Your task to perform on an android device: View the shopping cart on target. Add razer deathadder to the cart on target, then select checkout. Image 0: 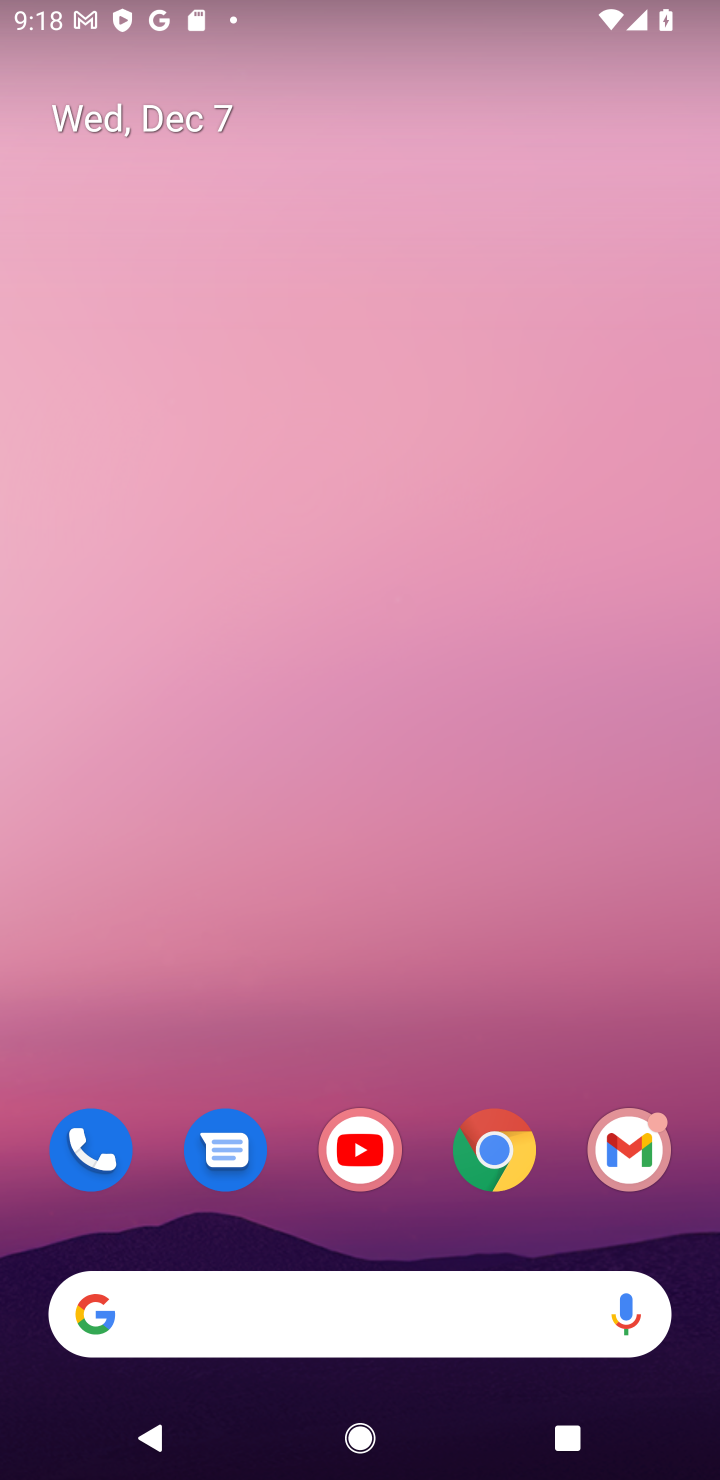
Step 0: click (510, 1145)
Your task to perform on an android device: View the shopping cart on target. Add razer deathadder to the cart on target, then select checkout. Image 1: 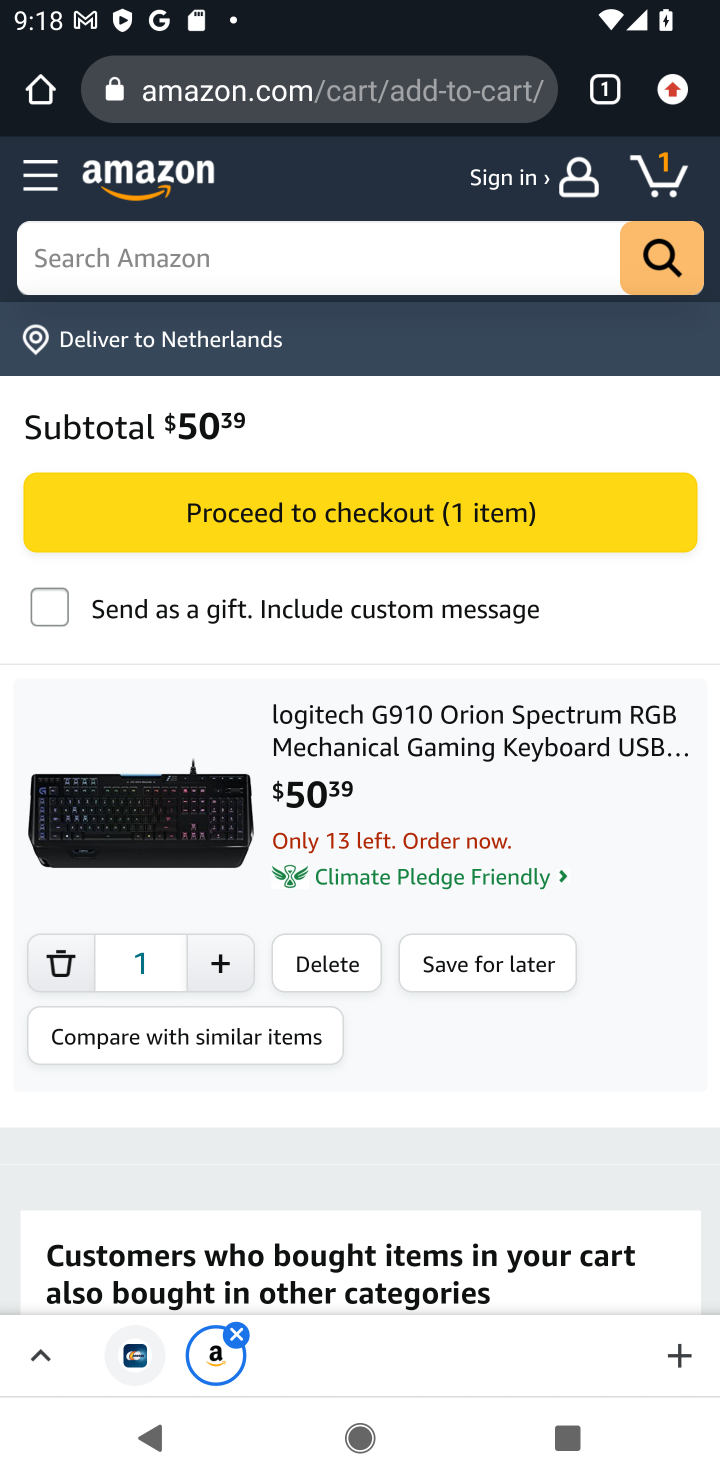
Step 1: click (335, 83)
Your task to perform on an android device: View the shopping cart on target. Add razer deathadder to the cart on target, then select checkout. Image 2: 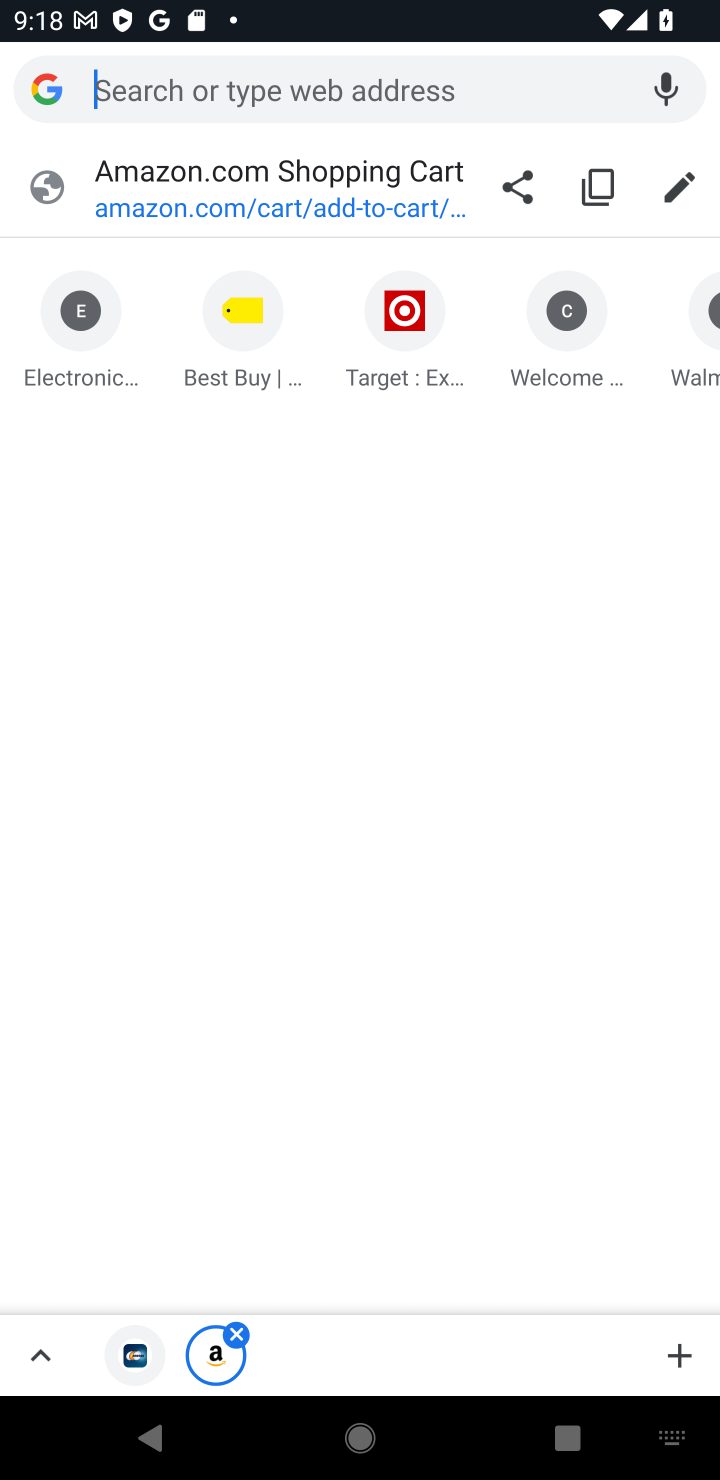
Step 2: click (399, 318)
Your task to perform on an android device: View the shopping cart on target. Add razer deathadder to the cart on target, then select checkout. Image 3: 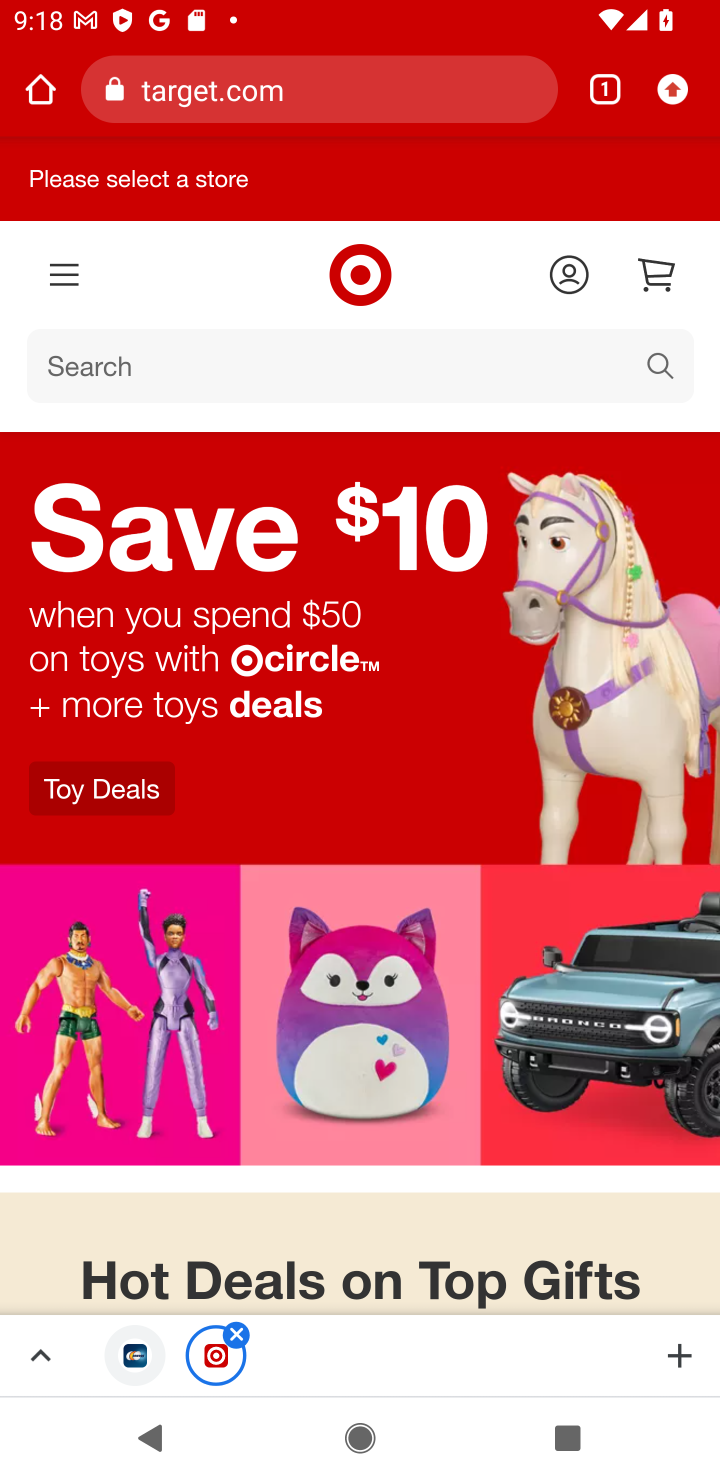
Step 3: click (653, 360)
Your task to perform on an android device: View the shopping cart on target. Add razer deathadder to the cart on target, then select checkout. Image 4: 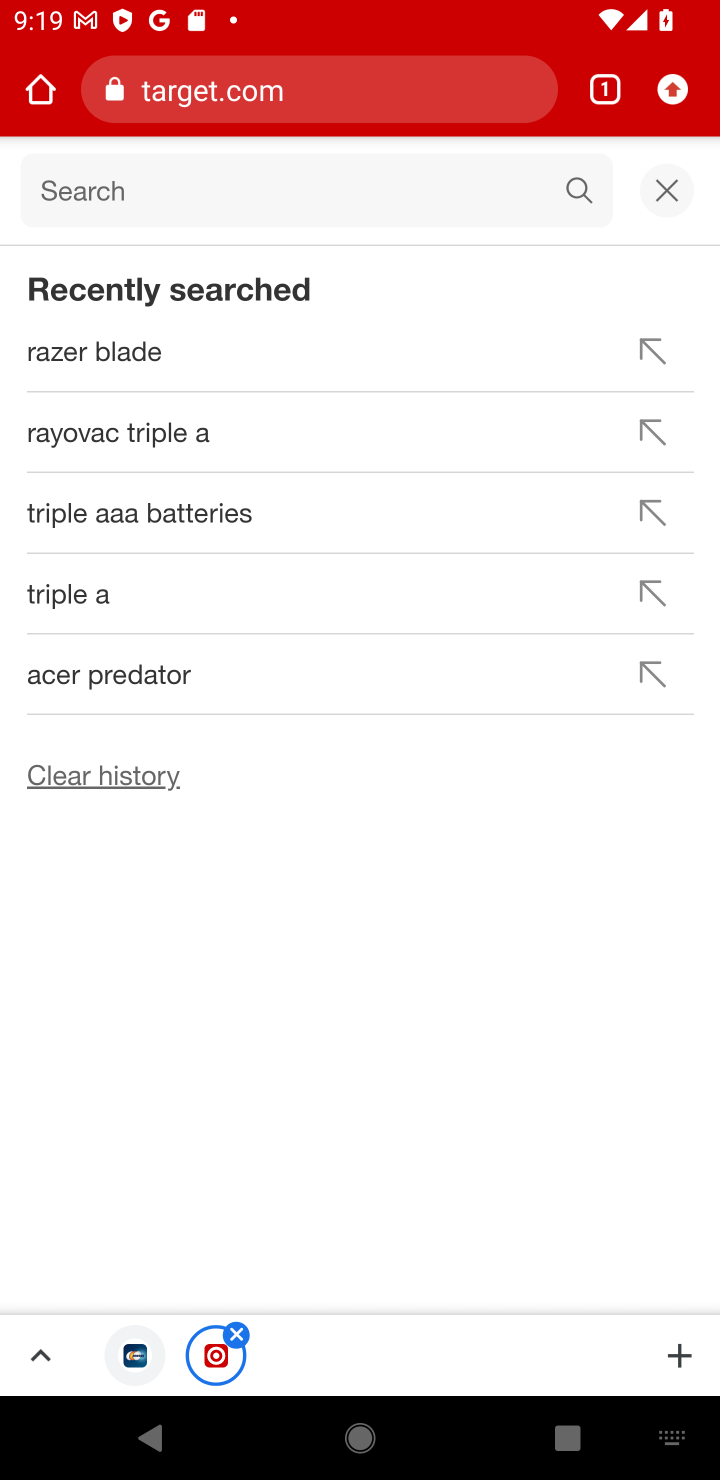
Step 4: click (257, 182)
Your task to perform on an android device: View the shopping cart on target. Add razer deathadder to the cart on target, then select checkout. Image 5: 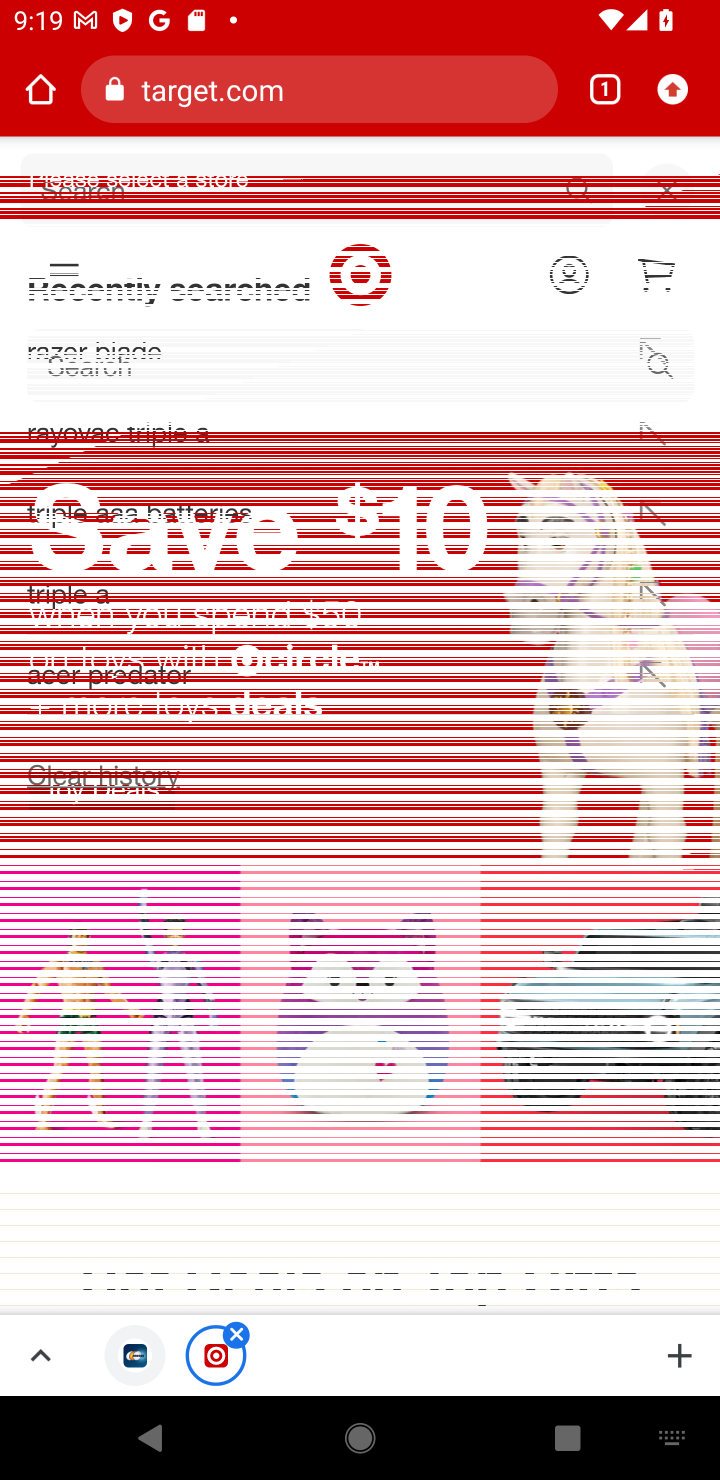
Step 5: press enter
Your task to perform on an android device: View the shopping cart on target. Add razer deathadder to the cart on target, then select checkout. Image 6: 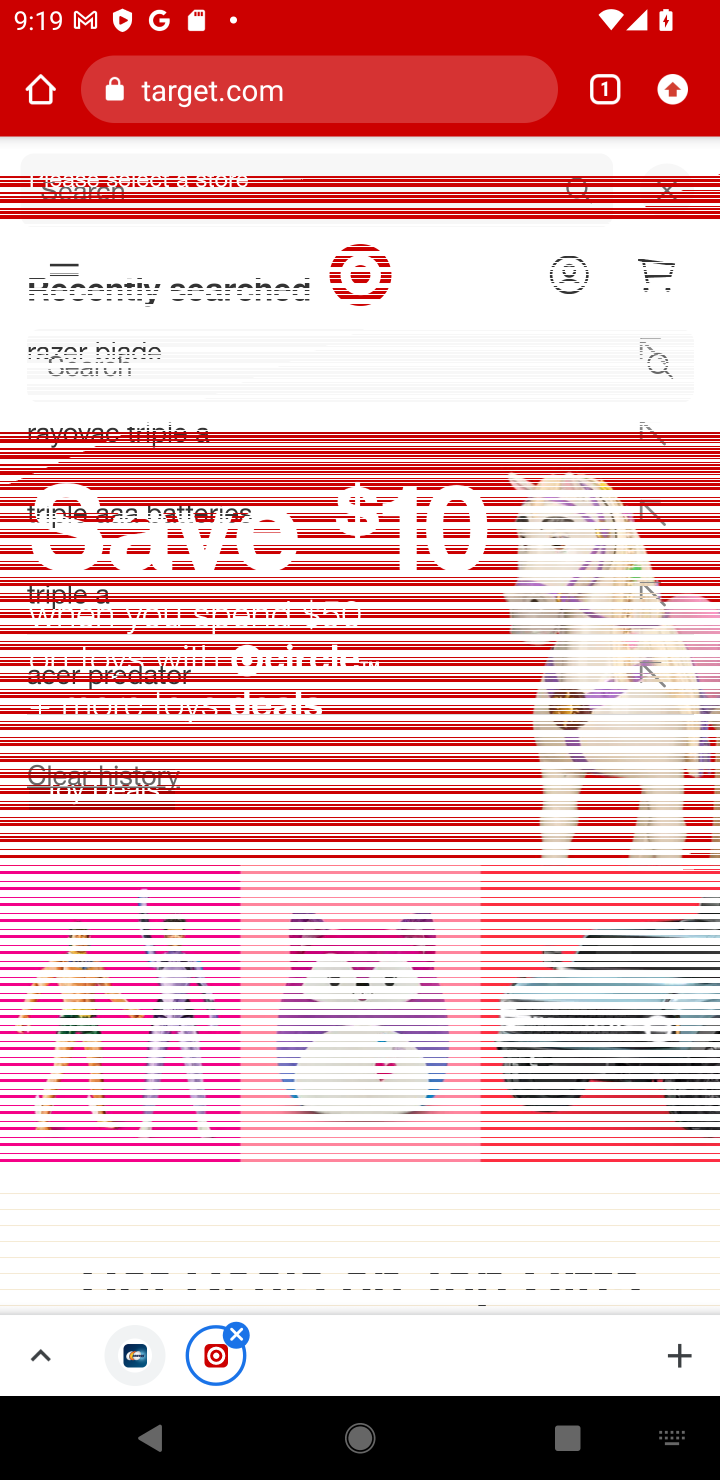
Step 6: type "razer deathadder"
Your task to perform on an android device: View the shopping cart on target. Add razer deathadder to the cart on target, then select checkout. Image 7: 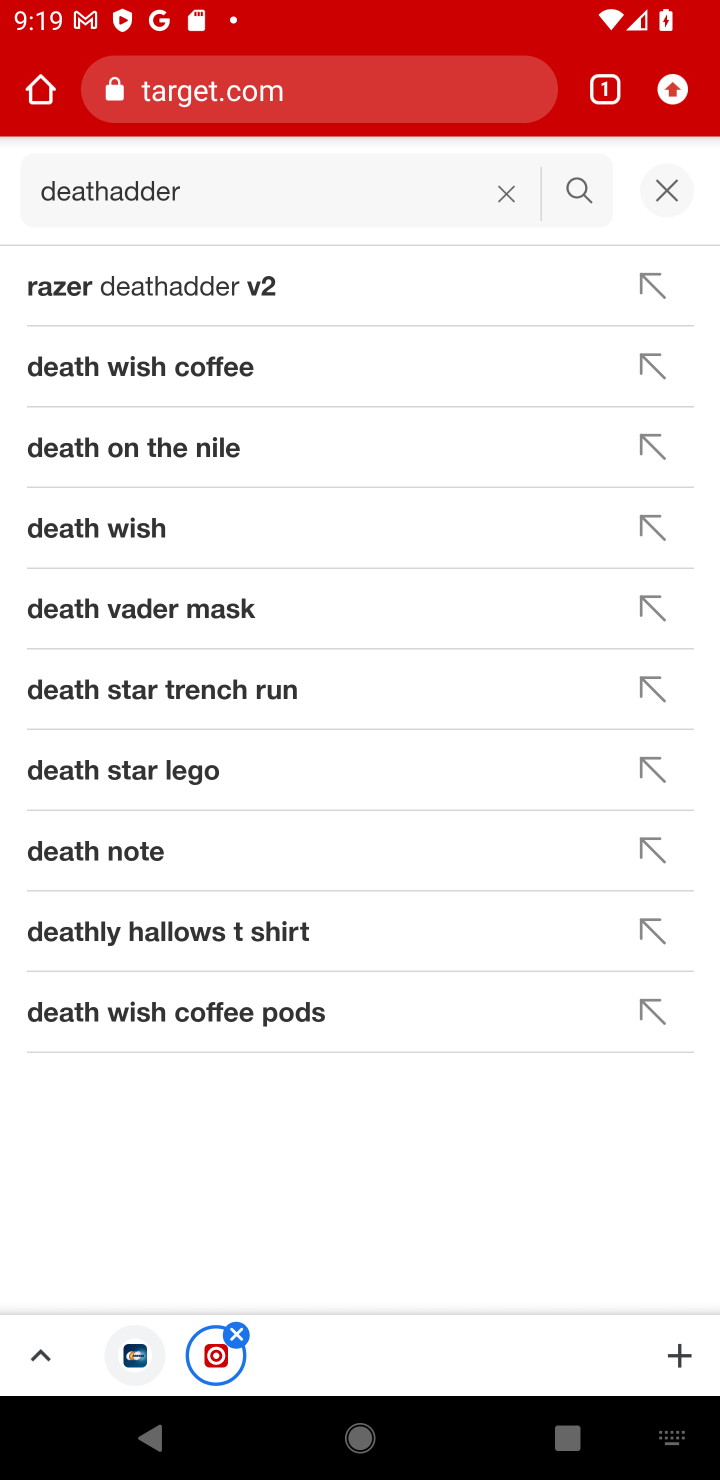
Step 7: click (569, 190)
Your task to perform on an android device: View the shopping cart on target. Add razer deathadder to the cart on target, then select checkout. Image 8: 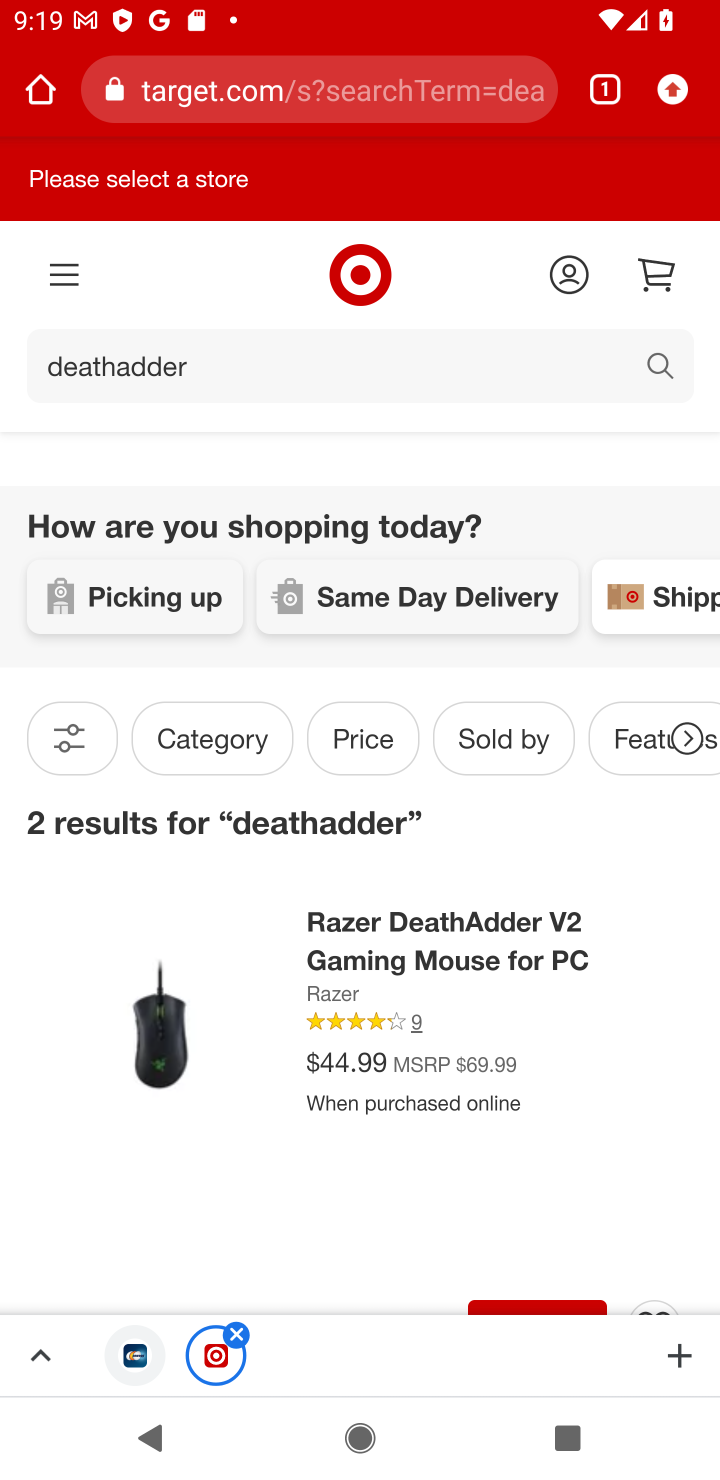
Step 8: click (127, 987)
Your task to perform on an android device: View the shopping cart on target. Add razer deathadder to the cart on target, then select checkout. Image 9: 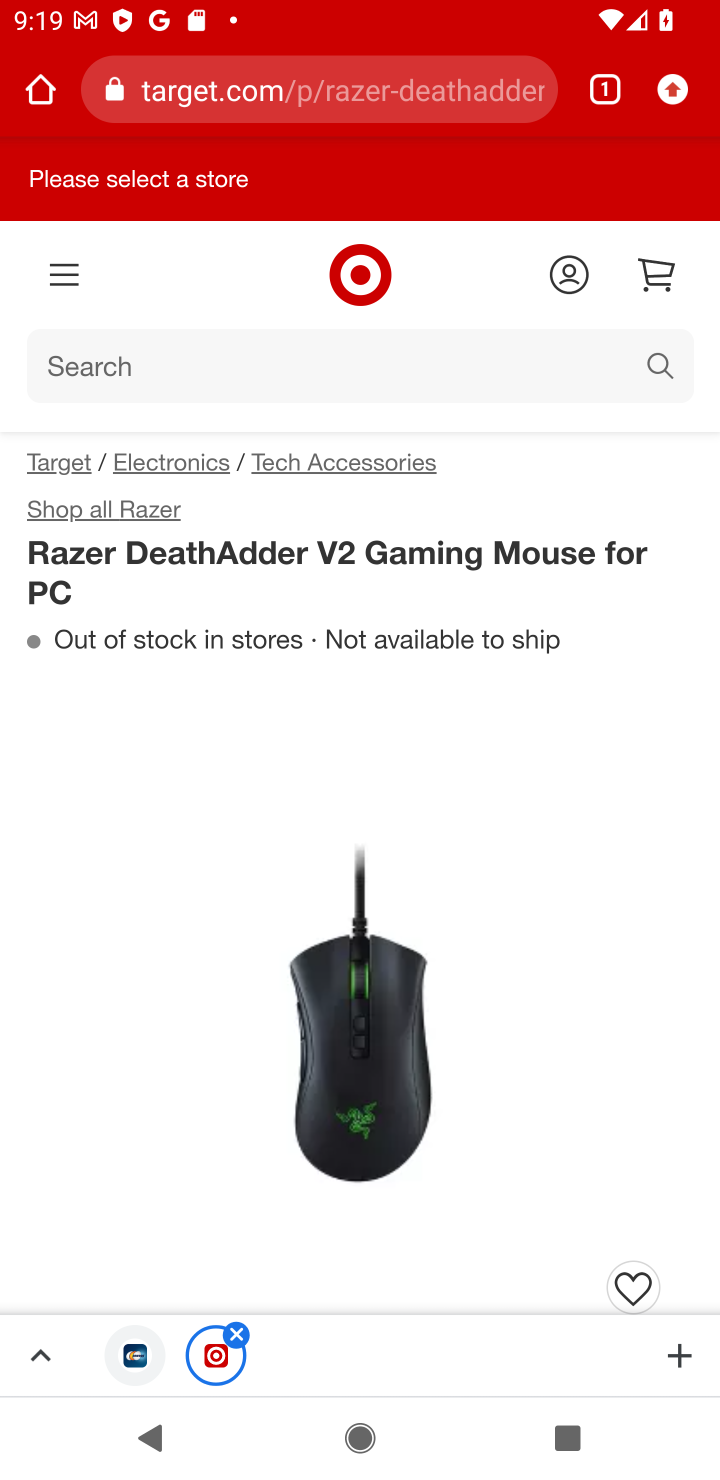
Step 9: drag from (477, 1044) to (632, 290)
Your task to perform on an android device: View the shopping cart on target. Add razer deathadder to the cart on target, then select checkout. Image 10: 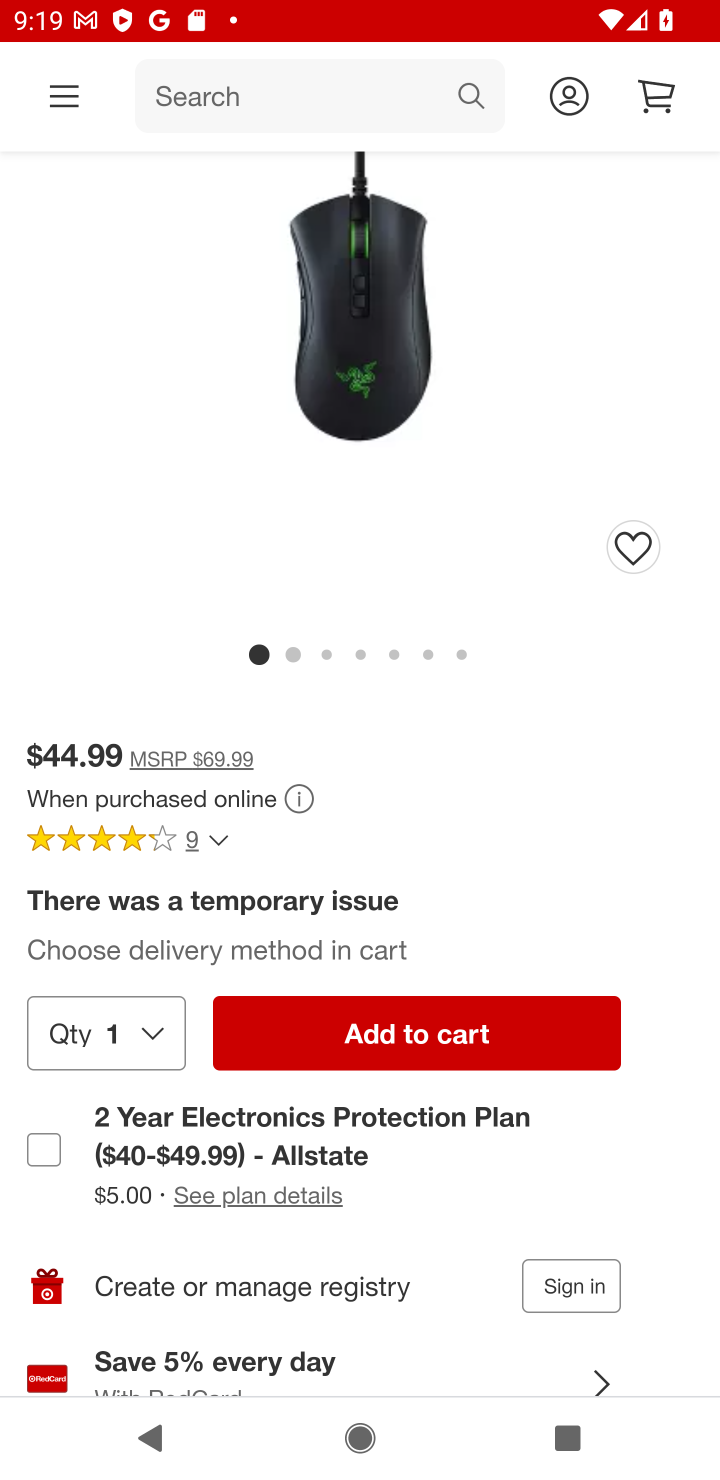
Step 10: click (405, 1005)
Your task to perform on an android device: View the shopping cart on target. Add razer deathadder to the cart on target, then select checkout. Image 11: 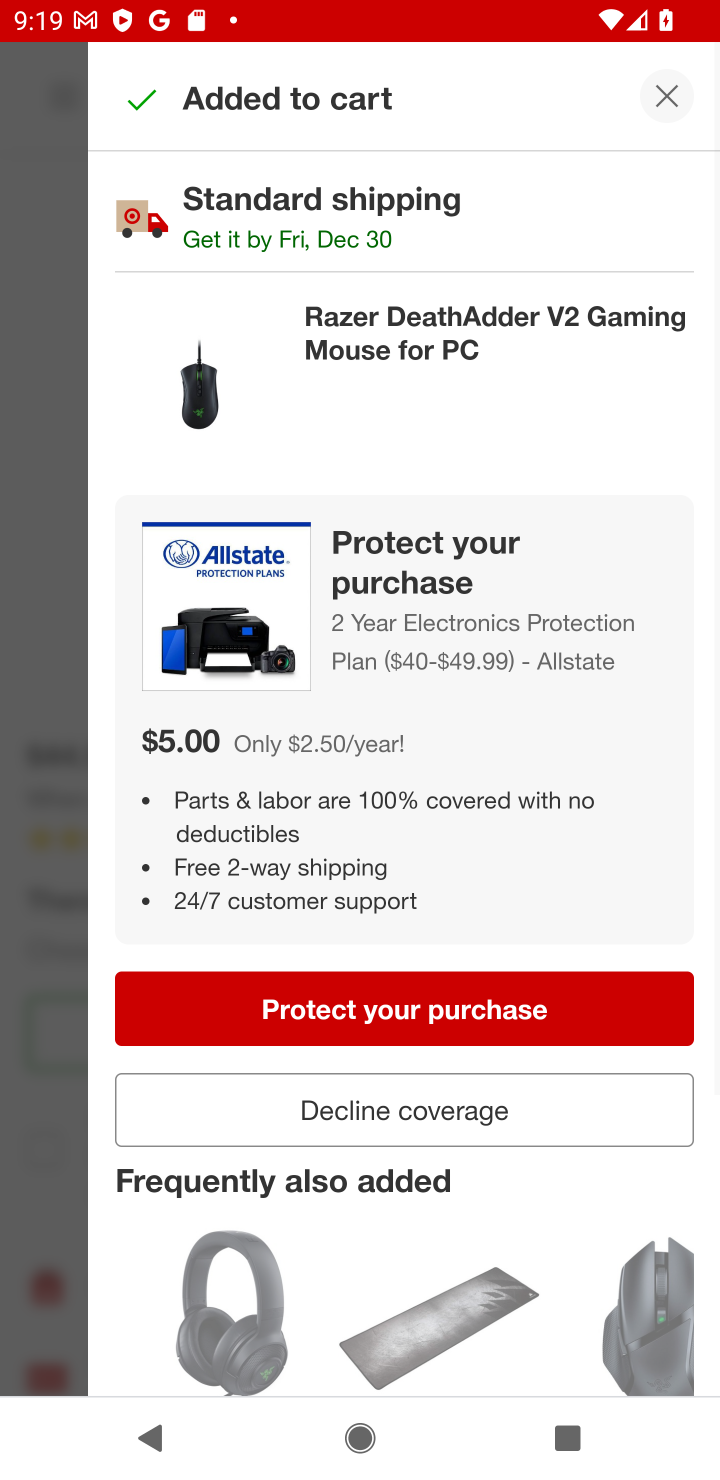
Step 11: click (664, 77)
Your task to perform on an android device: View the shopping cart on target. Add razer deathadder to the cart on target, then select checkout. Image 12: 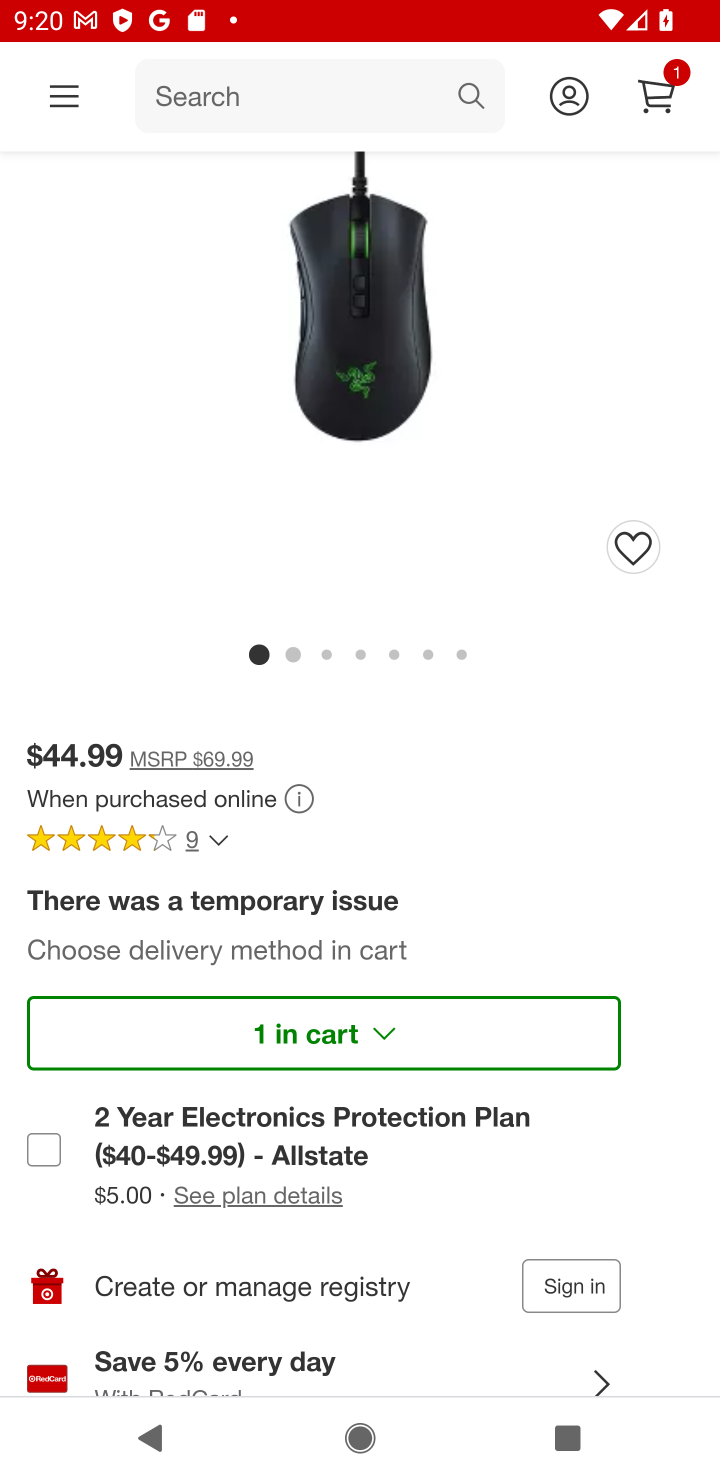
Step 12: click (675, 94)
Your task to perform on an android device: View the shopping cart on target. Add razer deathadder to the cart on target, then select checkout. Image 13: 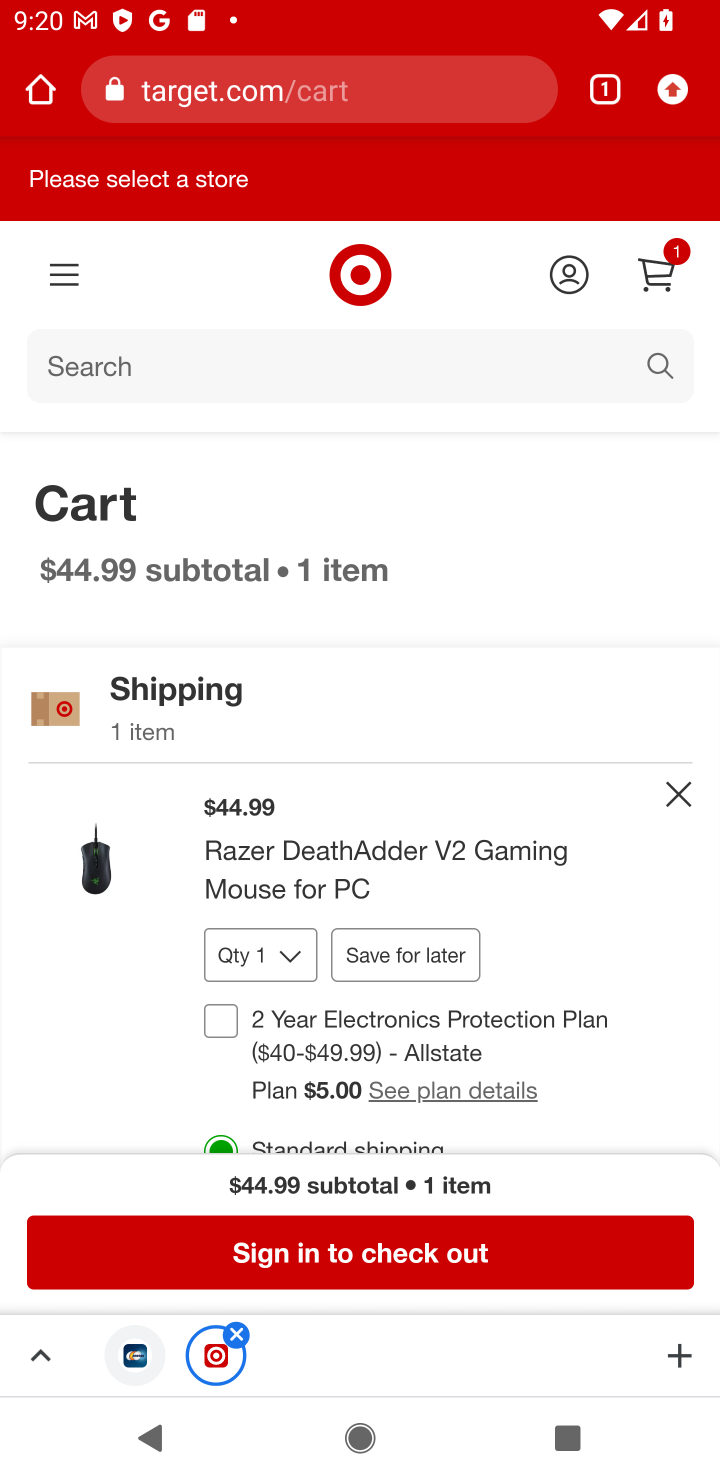
Step 13: click (425, 1256)
Your task to perform on an android device: View the shopping cart on target. Add razer deathadder to the cart on target, then select checkout. Image 14: 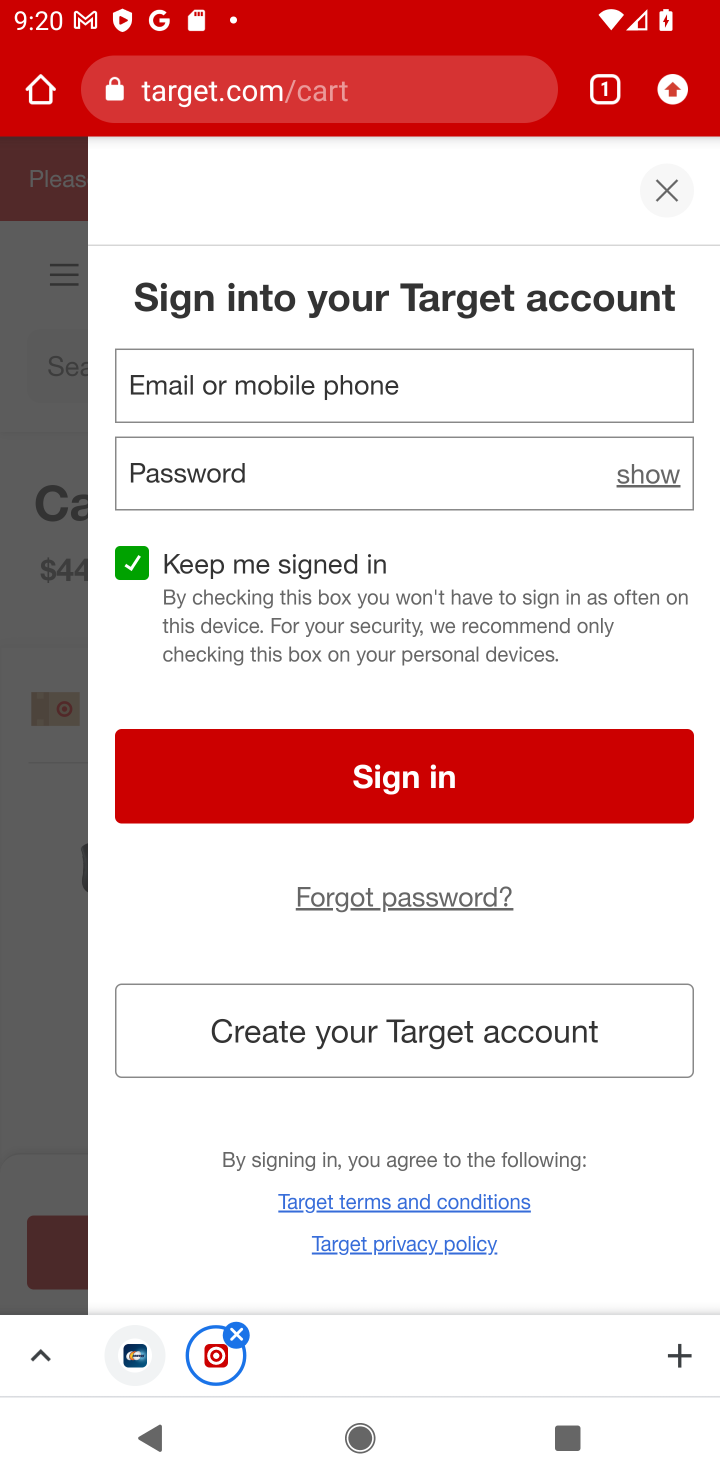
Step 14: task complete